Your task to perform on an android device: Open calendar and show me the second week of next month Image 0: 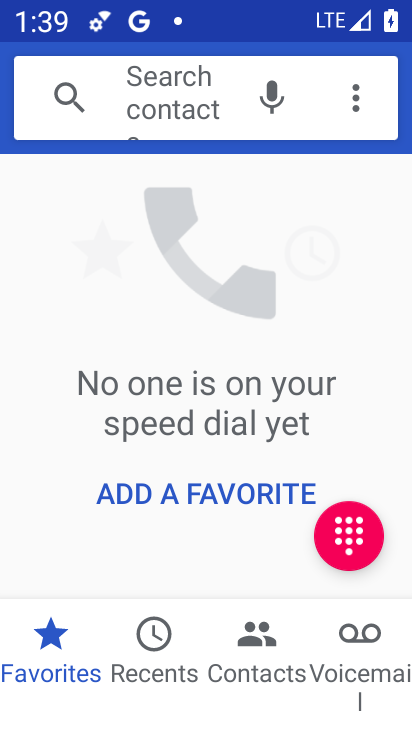
Step 0: press home button
Your task to perform on an android device: Open calendar and show me the second week of next month Image 1: 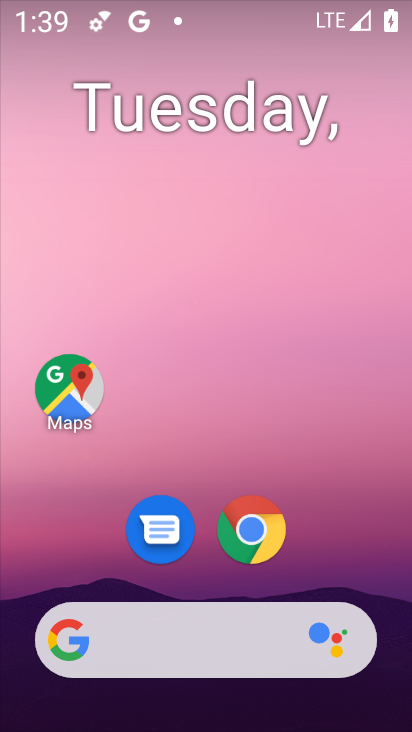
Step 1: drag from (381, 575) to (277, 76)
Your task to perform on an android device: Open calendar and show me the second week of next month Image 2: 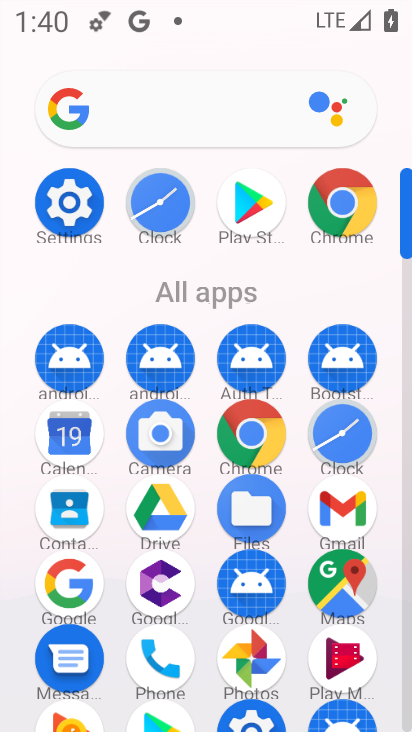
Step 2: click (68, 440)
Your task to perform on an android device: Open calendar and show me the second week of next month Image 3: 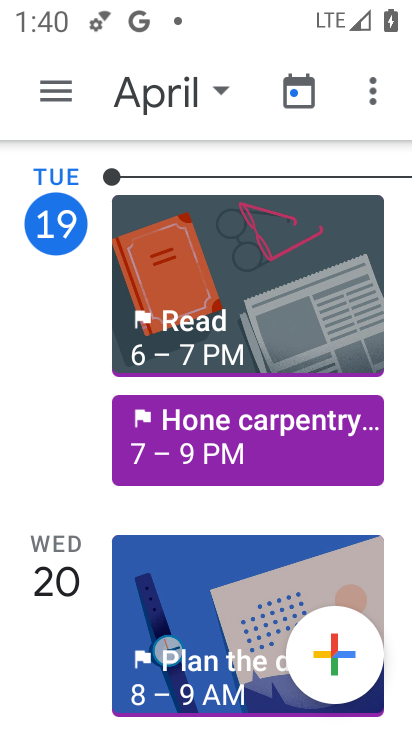
Step 3: click (217, 87)
Your task to perform on an android device: Open calendar and show me the second week of next month Image 4: 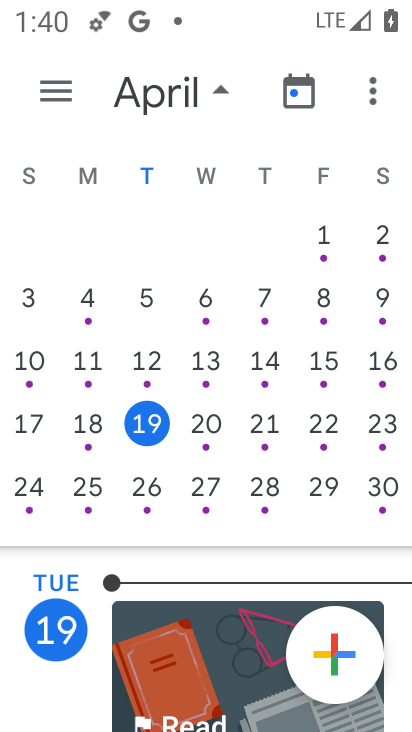
Step 4: drag from (399, 303) to (31, 243)
Your task to perform on an android device: Open calendar and show me the second week of next month Image 5: 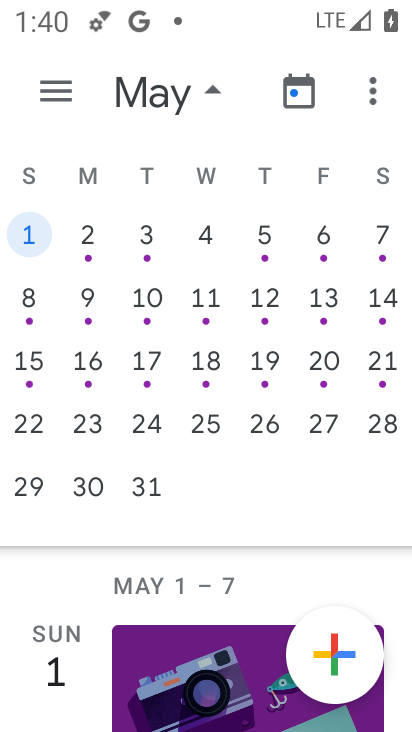
Step 5: click (203, 295)
Your task to perform on an android device: Open calendar and show me the second week of next month Image 6: 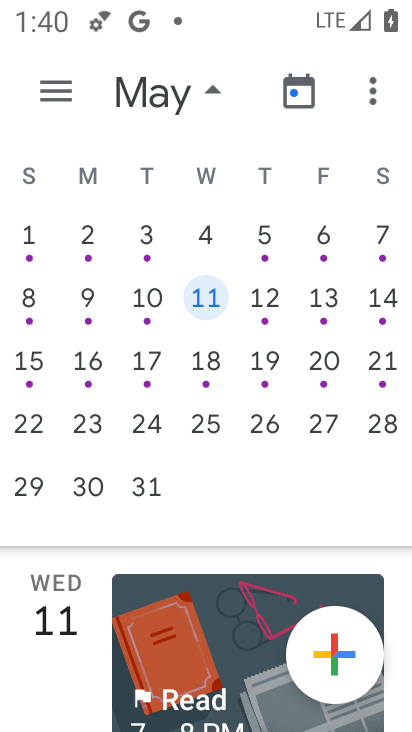
Step 6: task complete